Your task to perform on an android device: Open eBay Image 0: 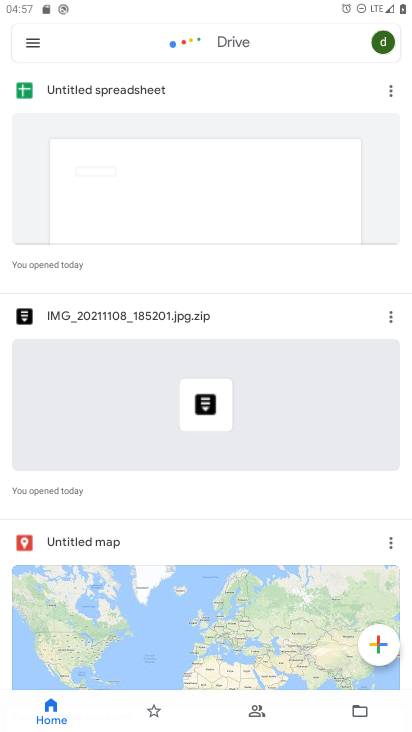
Step 0: press home button
Your task to perform on an android device: Open eBay Image 1: 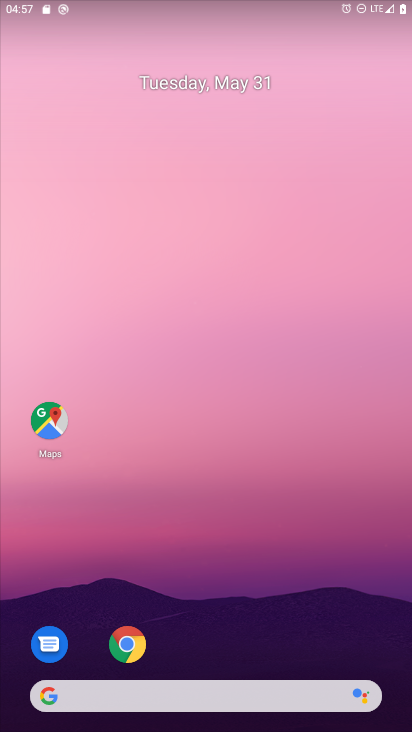
Step 1: click (132, 641)
Your task to perform on an android device: Open eBay Image 2: 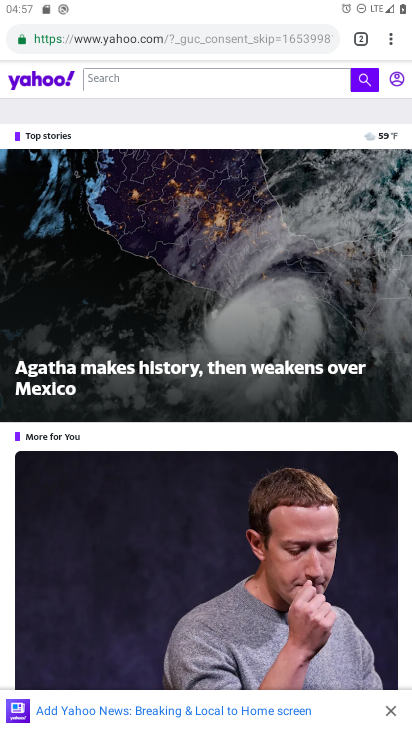
Step 2: click (262, 40)
Your task to perform on an android device: Open eBay Image 3: 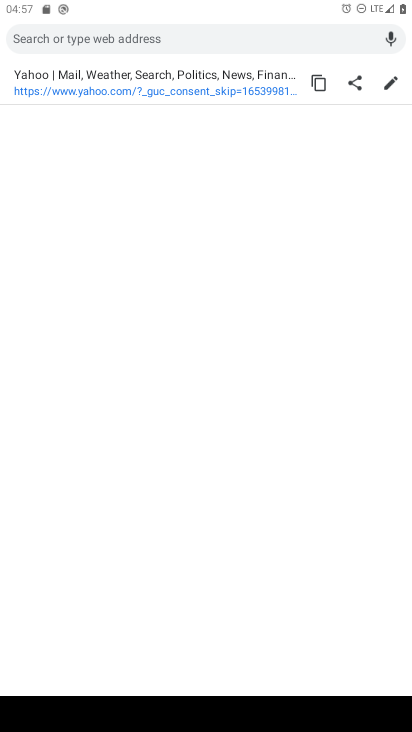
Step 3: type "ebay"
Your task to perform on an android device: Open eBay Image 4: 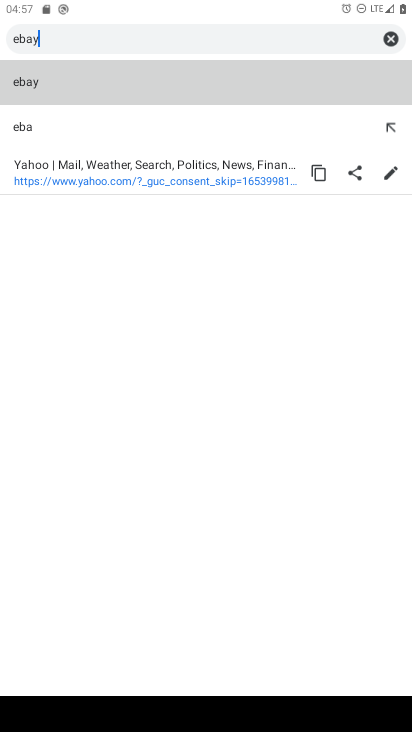
Step 4: type ""
Your task to perform on an android device: Open eBay Image 5: 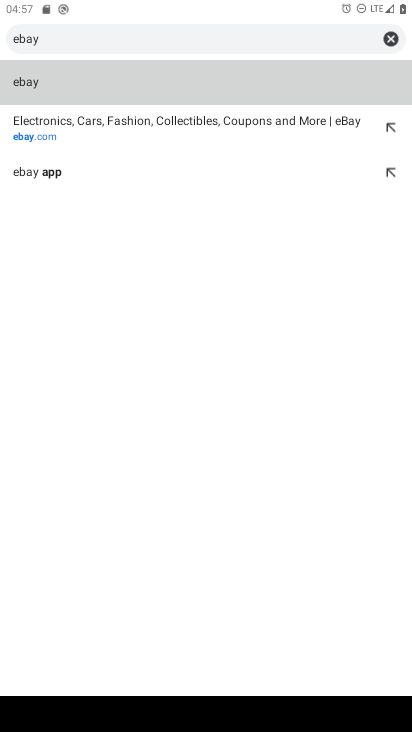
Step 5: click (44, 140)
Your task to perform on an android device: Open eBay Image 6: 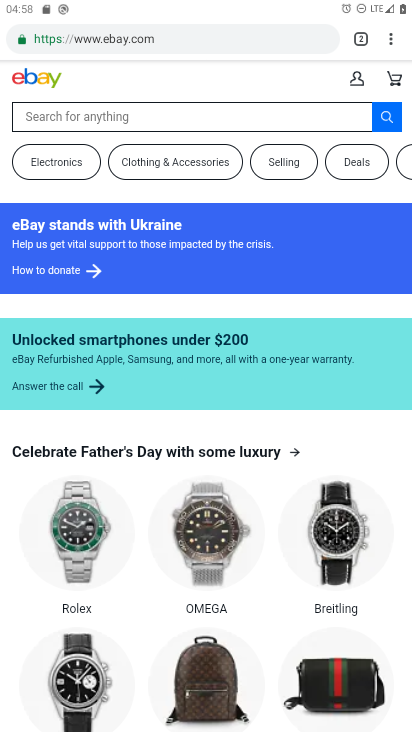
Step 6: task complete